Your task to perform on an android device: find which apps use the phone's location Image 0: 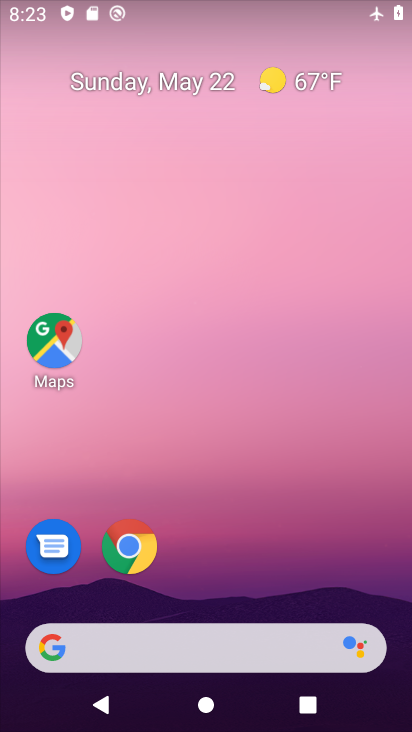
Step 0: drag from (229, 572) to (256, 71)
Your task to perform on an android device: find which apps use the phone's location Image 1: 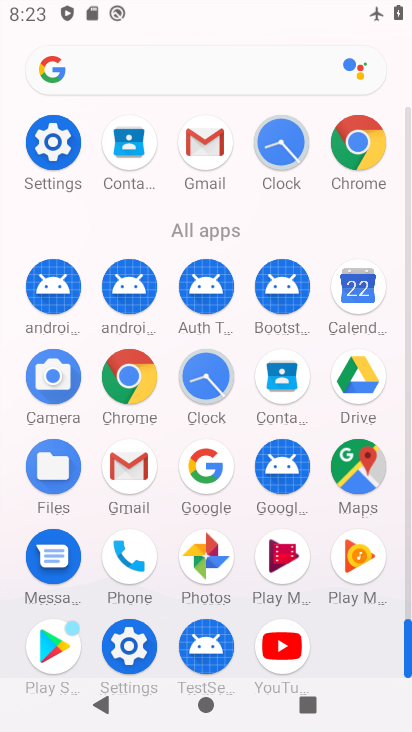
Step 1: click (49, 161)
Your task to perform on an android device: find which apps use the phone's location Image 2: 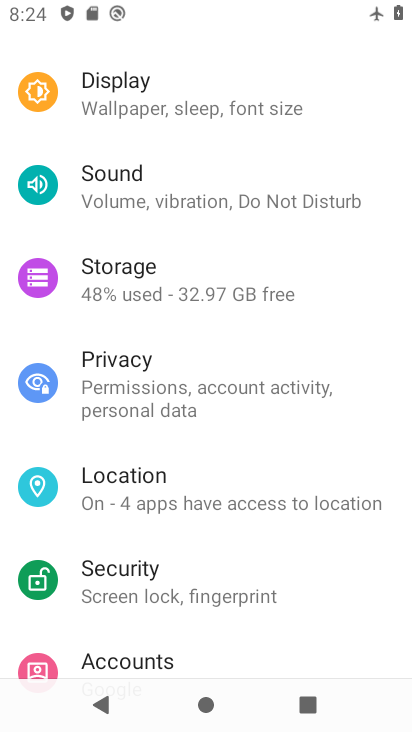
Step 2: click (153, 507)
Your task to perform on an android device: find which apps use the phone's location Image 3: 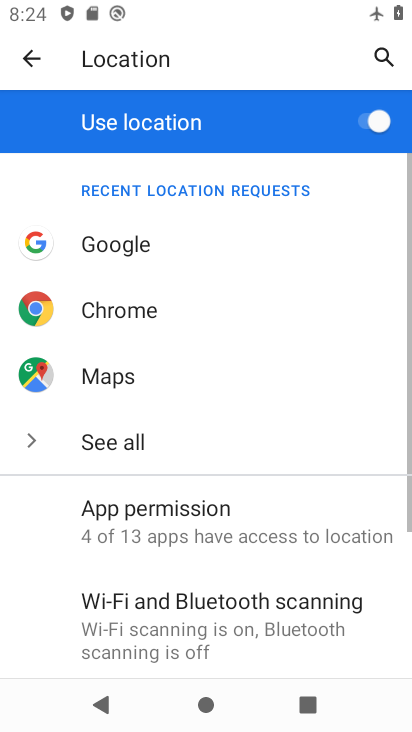
Step 3: click (147, 537)
Your task to perform on an android device: find which apps use the phone's location Image 4: 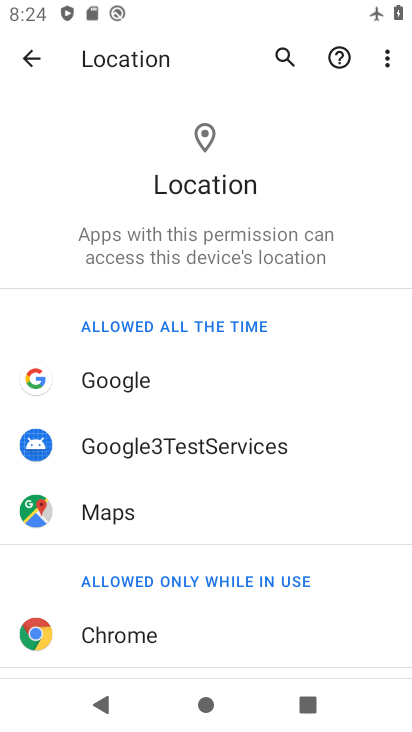
Step 4: task complete